Your task to perform on an android device: turn on sleep mode Image 0: 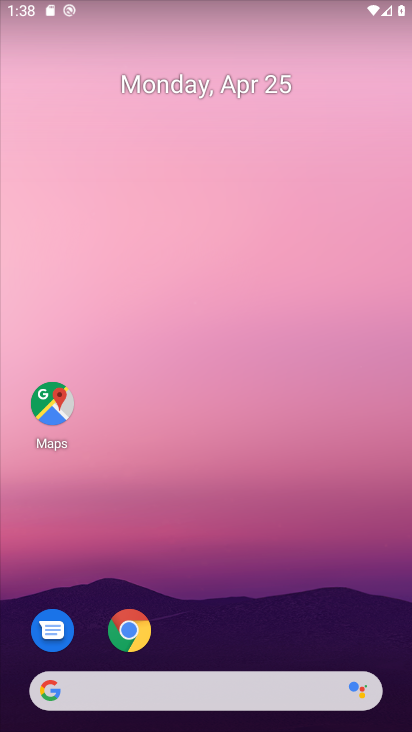
Step 0: drag from (301, 694) to (213, 261)
Your task to perform on an android device: turn on sleep mode Image 1: 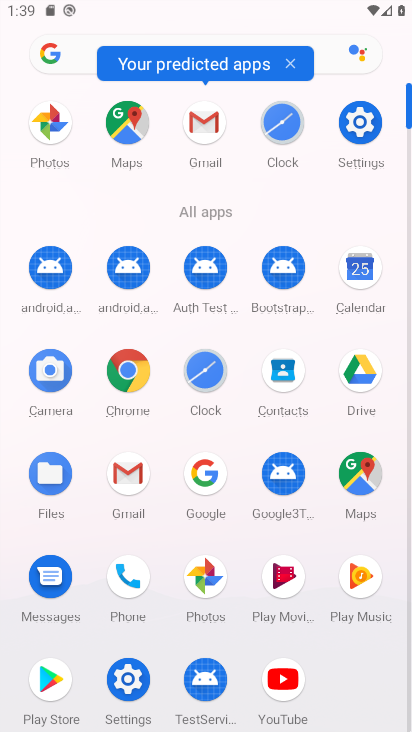
Step 1: click (360, 139)
Your task to perform on an android device: turn on sleep mode Image 2: 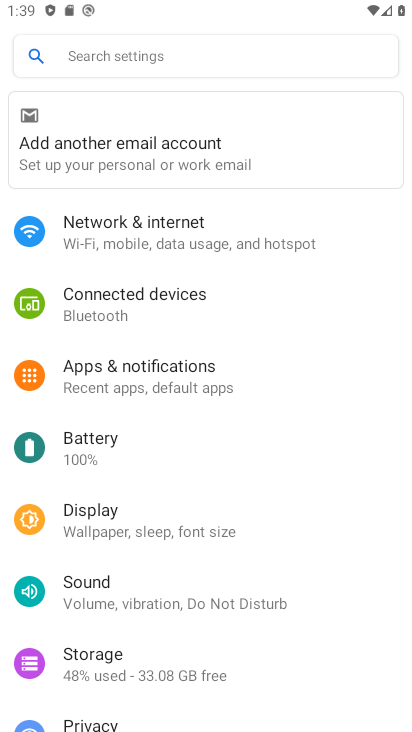
Step 2: click (184, 63)
Your task to perform on an android device: turn on sleep mode Image 3: 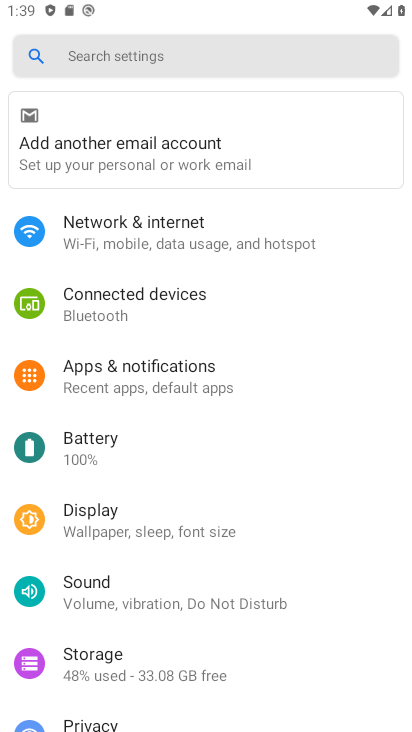
Step 3: click (181, 63)
Your task to perform on an android device: turn on sleep mode Image 4: 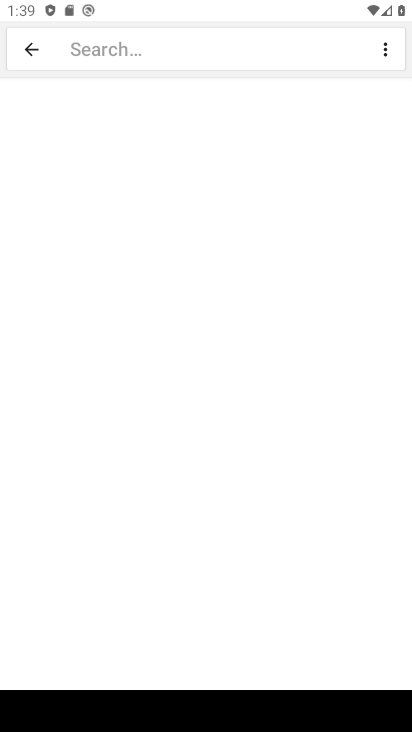
Step 4: drag from (384, 713) to (326, 535)
Your task to perform on an android device: turn on sleep mode Image 5: 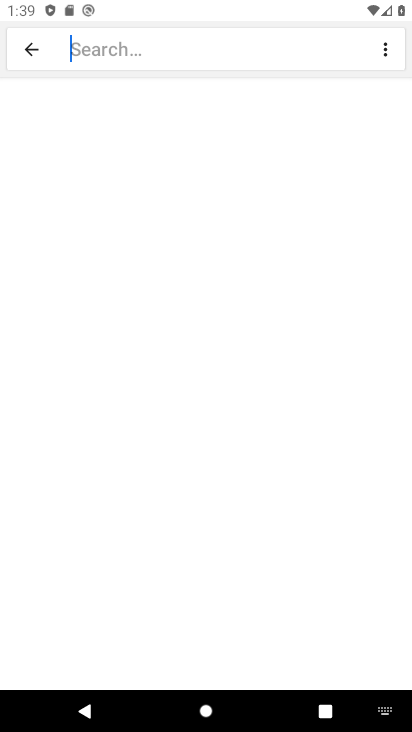
Step 5: click (392, 701)
Your task to perform on an android device: turn on sleep mode Image 6: 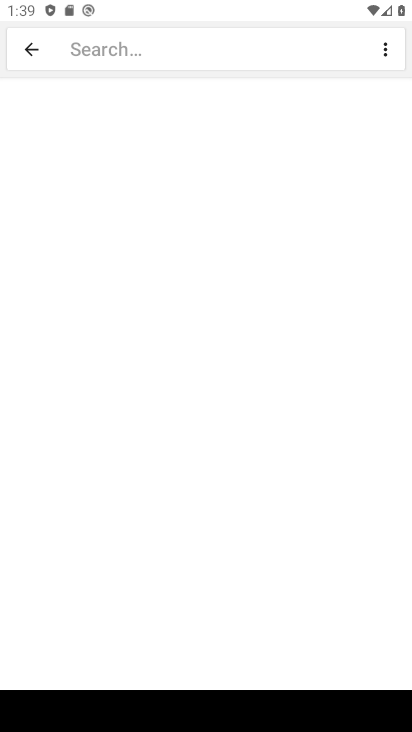
Step 6: drag from (404, 712) to (307, 413)
Your task to perform on an android device: turn on sleep mode Image 7: 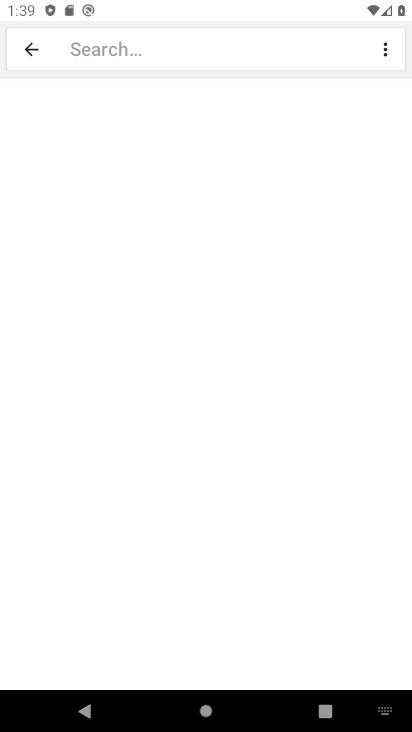
Step 7: click (393, 716)
Your task to perform on an android device: turn on sleep mode Image 8: 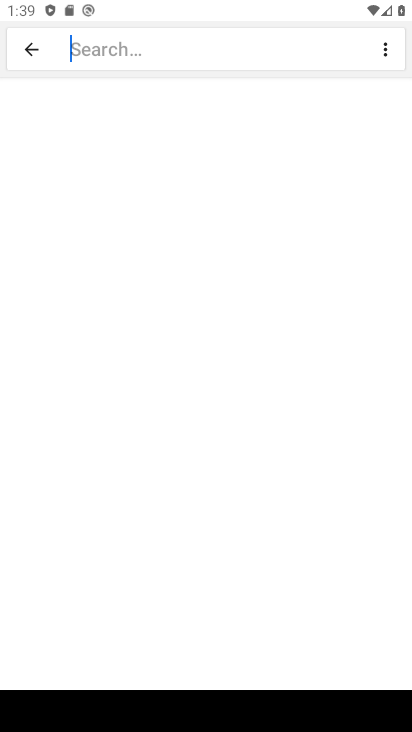
Step 8: click (391, 716)
Your task to perform on an android device: turn on sleep mode Image 9: 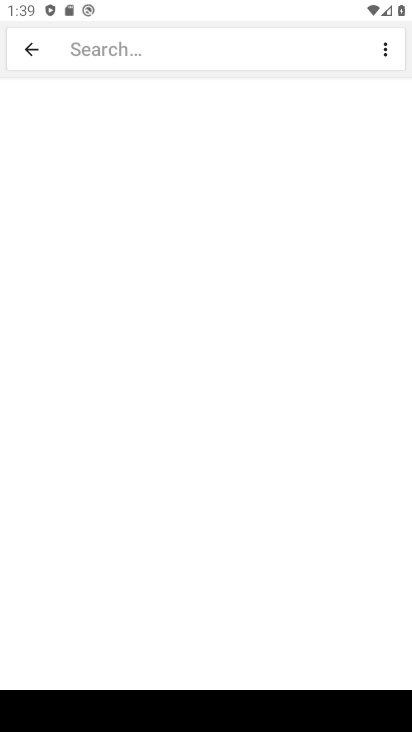
Step 9: click (403, 716)
Your task to perform on an android device: turn on sleep mode Image 10: 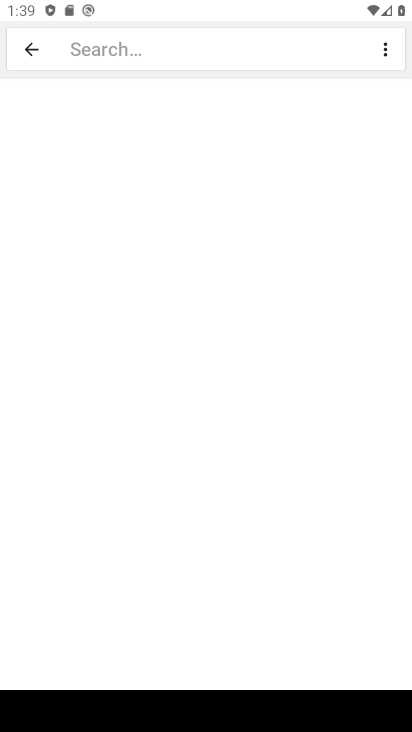
Step 10: drag from (399, 718) to (370, 556)
Your task to perform on an android device: turn on sleep mode Image 11: 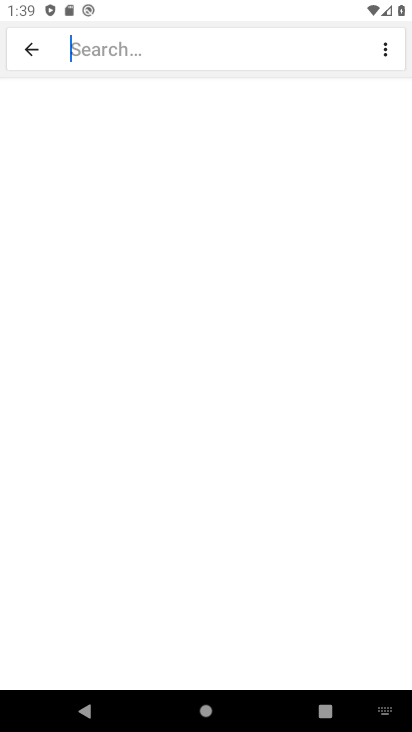
Step 11: click (395, 701)
Your task to perform on an android device: turn on sleep mode Image 12: 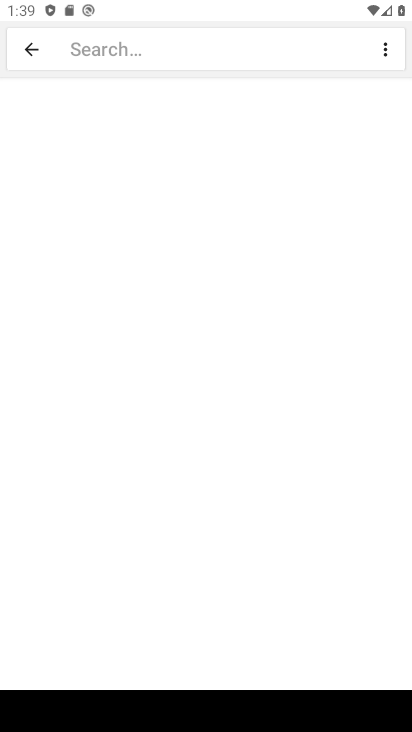
Step 12: drag from (398, 720) to (387, 457)
Your task to perform on an android device: turn on sleep mode Image 13: 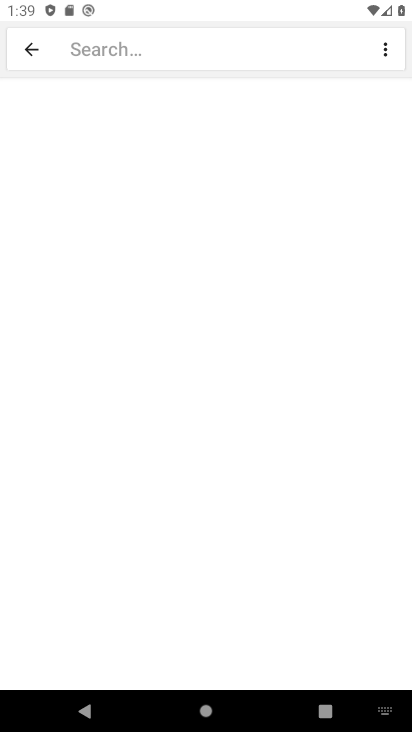
Step 13: click (395, 721)
Your task to perform on an android device: turn on sleep mode Image 14: 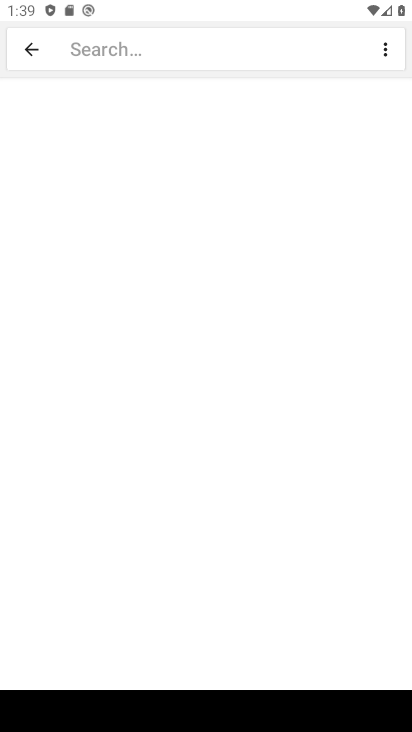
Step 14: drag from (384, 703) to (366, 479)
Your task to perform on an android device: turn on sleep mode Image 15: 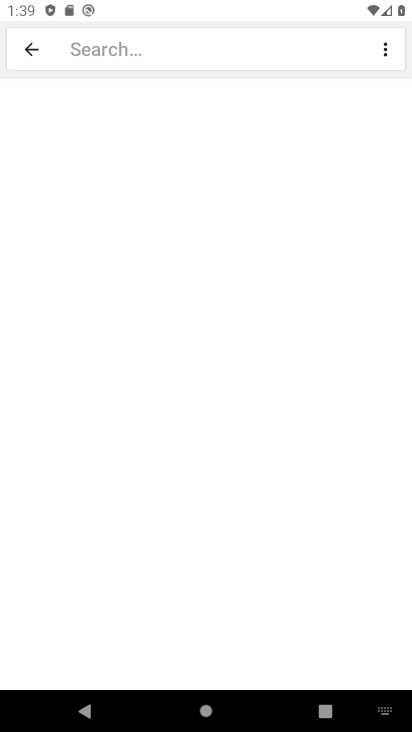
Step 15: click (391, 718)
Your task to perform on an android device: turn on sleep mode Image 16: 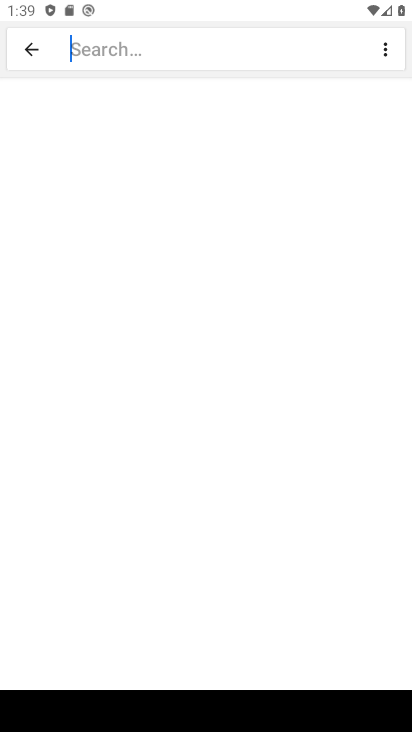
Step 16: click (149, 53)
Your task to perform on an android device: turn on sleep mode Image 17: 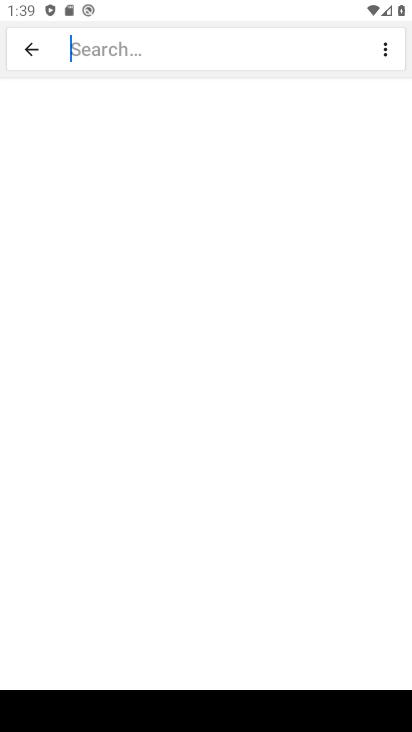
Step 17: drag from (399, 718) to (383, 582)
Your task to perform on an android device: turn on sleep mode Image 18: 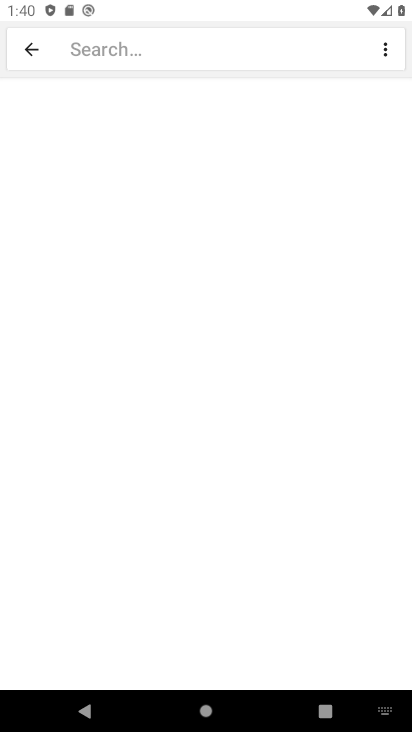
Step 18: click (393, 718)
Your task to perform on an android device: turn on sleep mode Image 19: 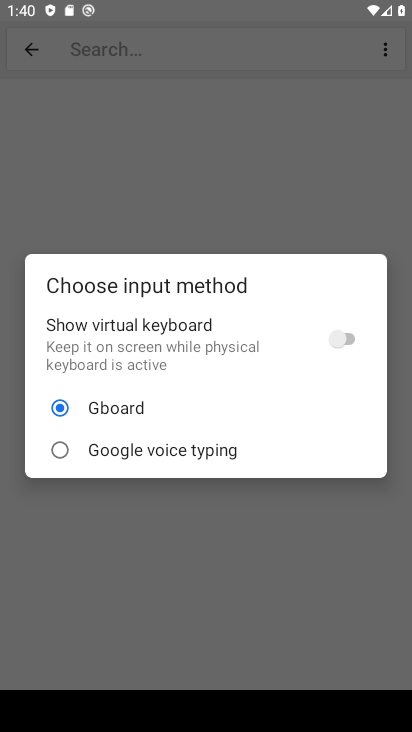
Step 19: click (330, 339)
Your task to perform on an android device: turn on sleep mode Image 20: 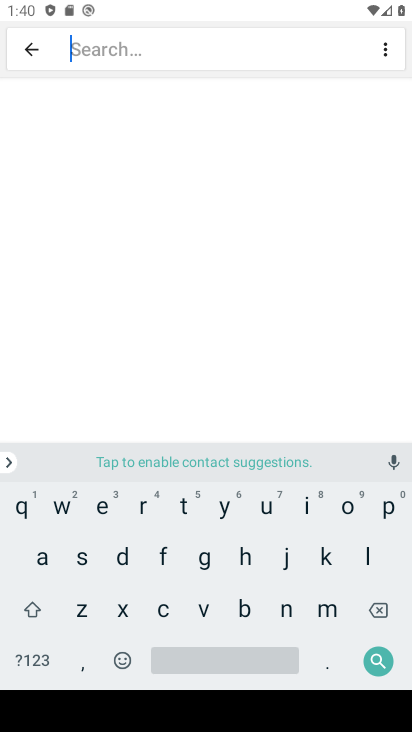
Step 20: click (115, 48)
Your task to perform on an android device: turn on sleep mode Image 21: 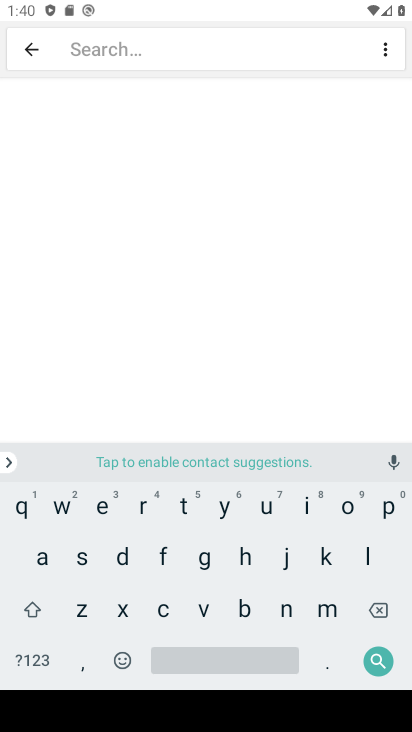
Step 21: click (75, 562)
Your task to perform on an android device: turn on sleep mode Image 22: 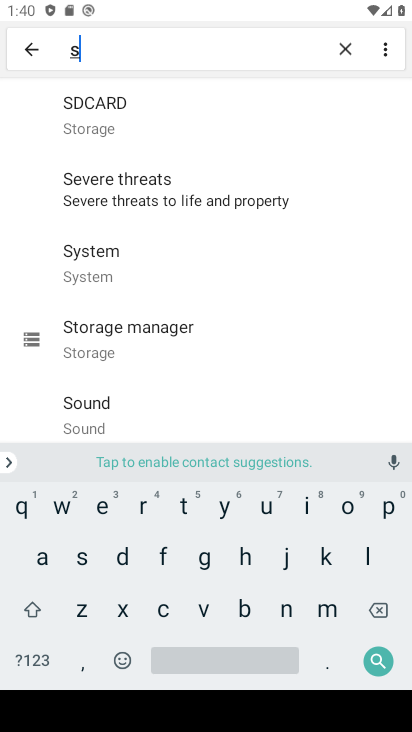
Step 22: click (366, 559)
Your task to perform on an android device: turn on sleep mode Image 23: 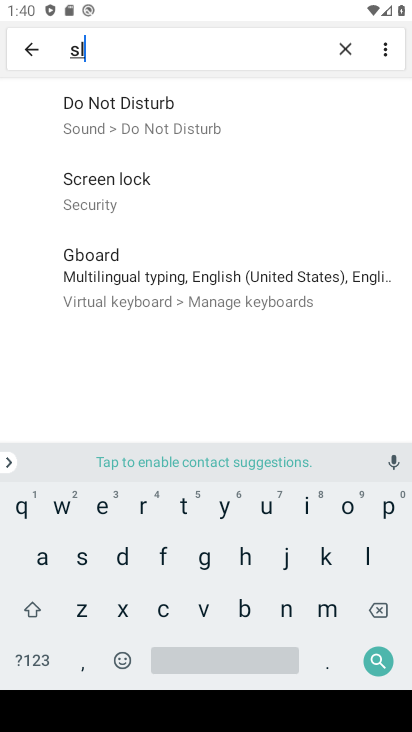
Step 23: click (157, 118)
Your task to perform on an android device: turn on sleep mode Image 24: 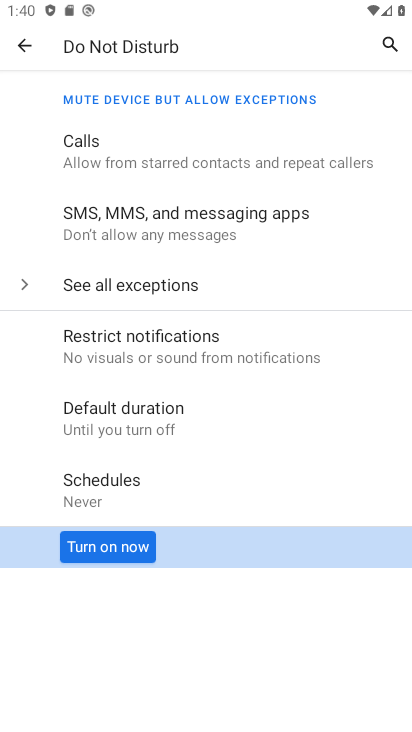
Step 24: click (118, 540)
Your task to perform on an android device: turn on sleep mode Image 25: 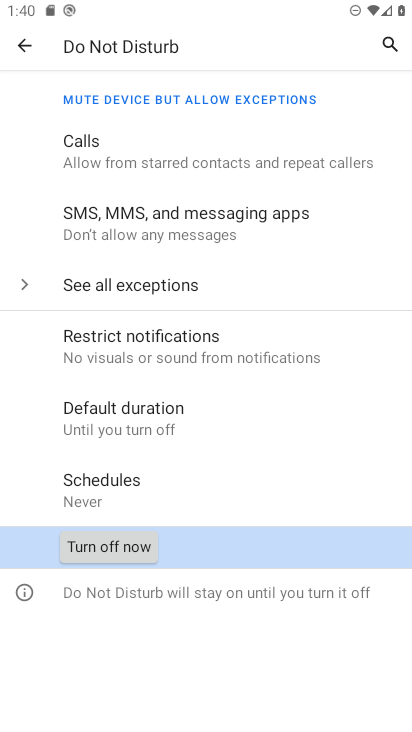
Step 25: task complete